Your task to perform on an android device: set the stopwatch Image 0: 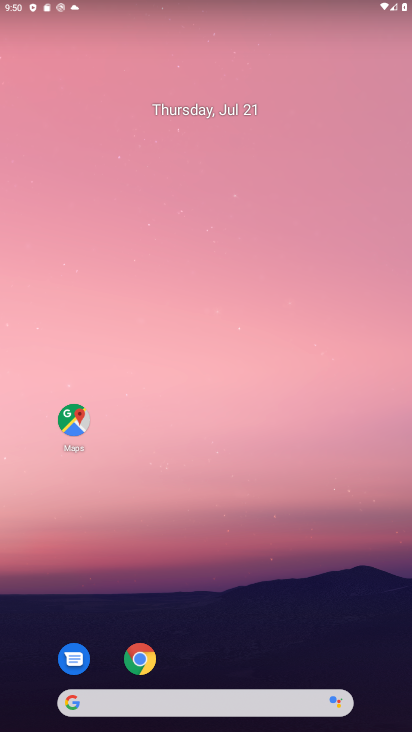
Step 0: task complete